Your task to perform on an android device: change timer sound Image 0: 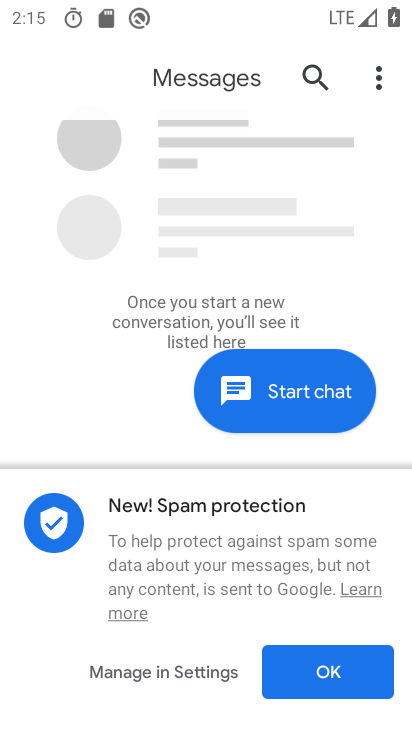
Step 0: press home button
Your task to perform on an android device: change timer sound Image 1: 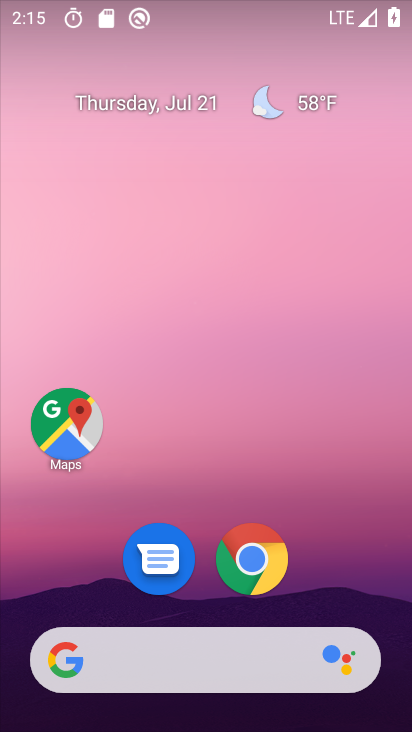
Step 1: drag from (360, 538) to (375, 147)
Your task to perform on an android device: change timer sound Image 2: 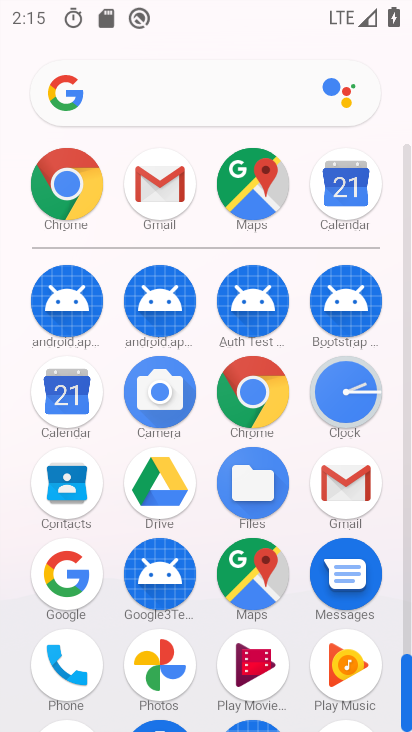
Step 2: click (376, 410)
Your task to perform on an android device: change timer sound Image 3: 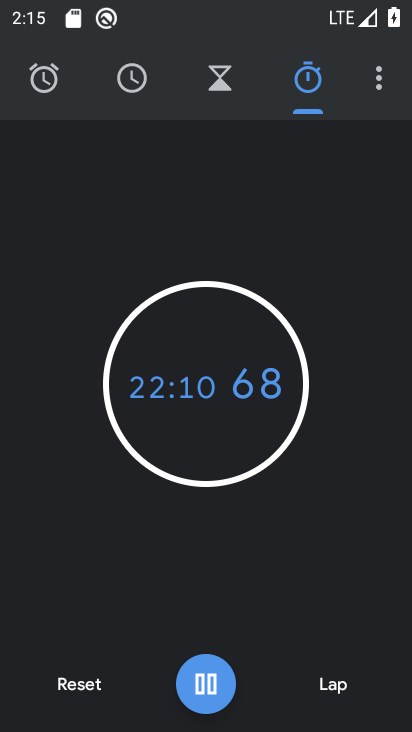
Step 3: click (380, 89)
Your task to perform on an android device: change timer sound Image 4: 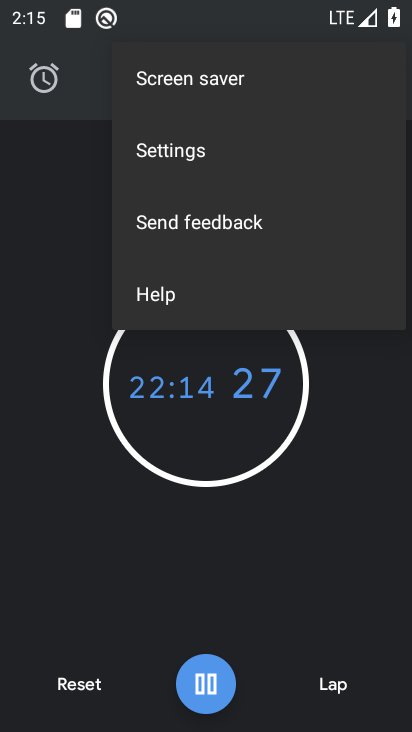
Step 4: click (246, 163)
Your task to perform on an android device: change timer sound Image 5: 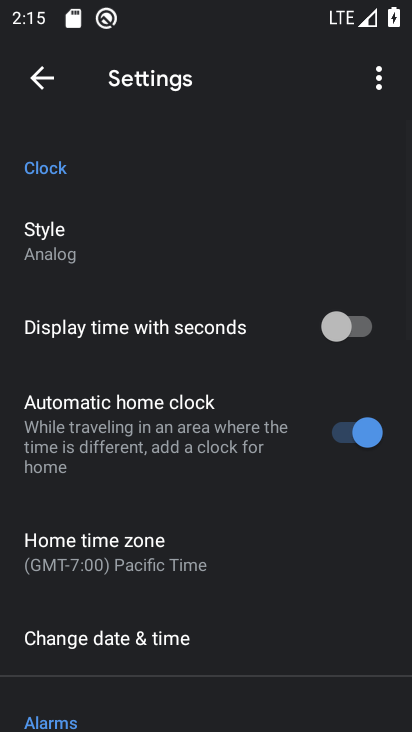
Step 5: drag from (280, 489) to (281, 422)
Your task to perform on an android device: change timer sound Image 6: 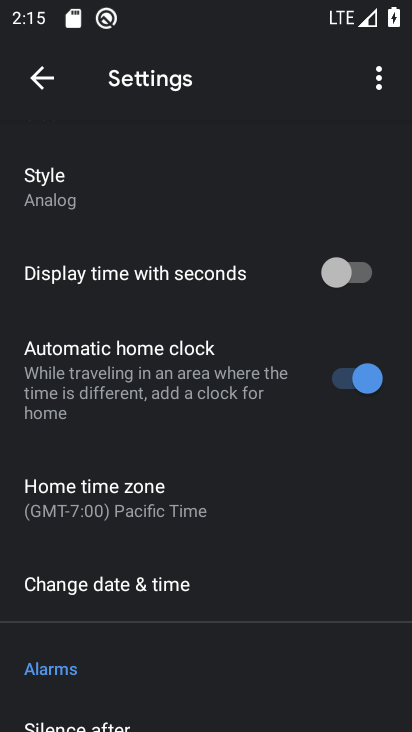
Step 6: drag from (285, 517) to (289, 438)
Your task to perform on an android device: change timer sound Image 7: 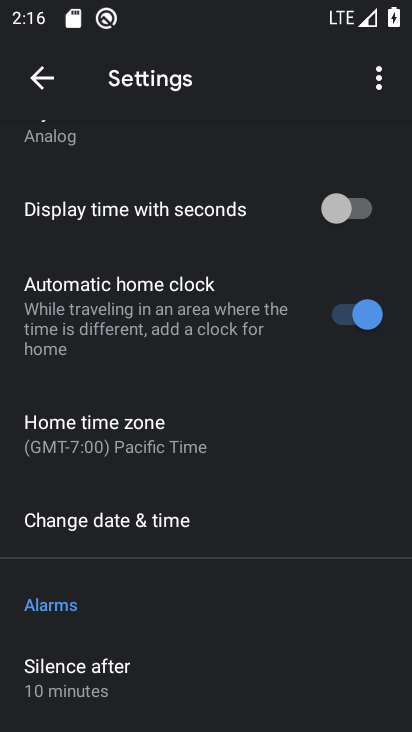
Step 7: drag from (287, 508) to (288, 430)
Your task to perform on an android device: change timer sound Image 8: 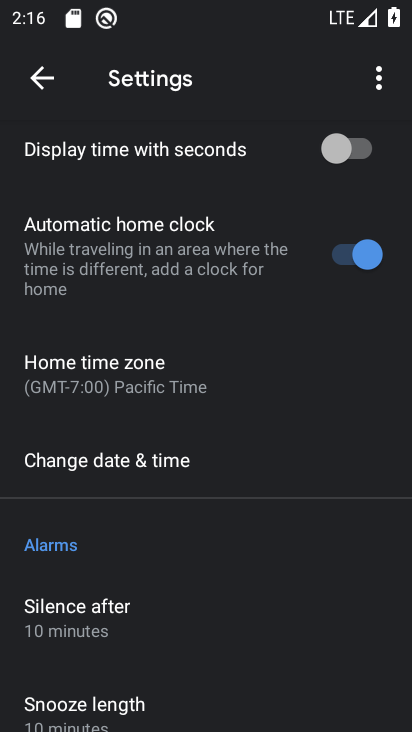
Step 8: drag from (305, 585) to (309, 442)
Your task to perform on an android device: change timer sound Image 9: 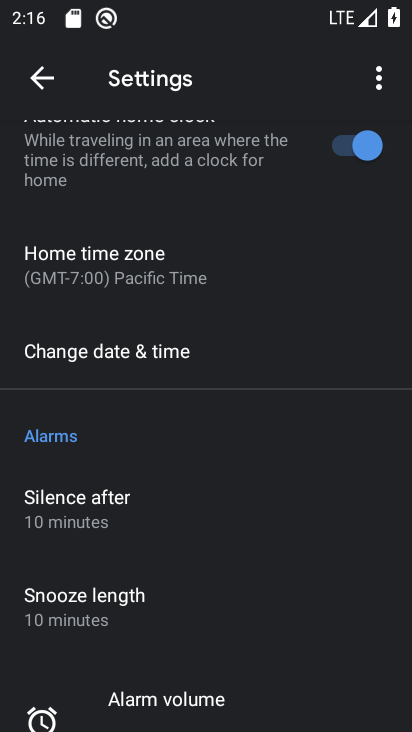
Step 9: drag from (317, 516) to (317, 425)
Your task to perform on an android device: change timer sound Image 10: 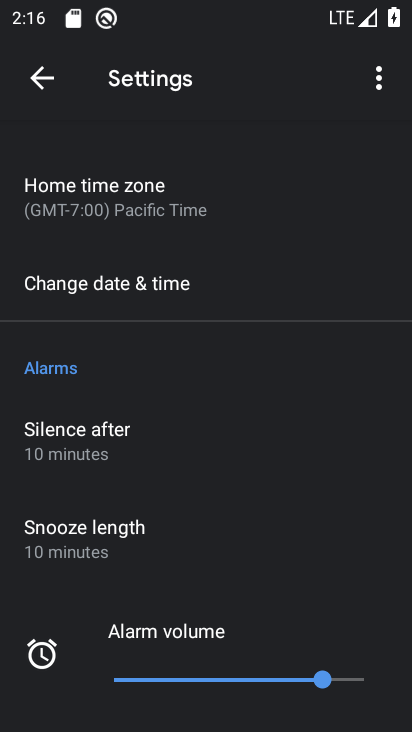
Step 10: drag from (300, 546) to (306, 433)
Your task to perform on an android device: change timer sound Image 11: 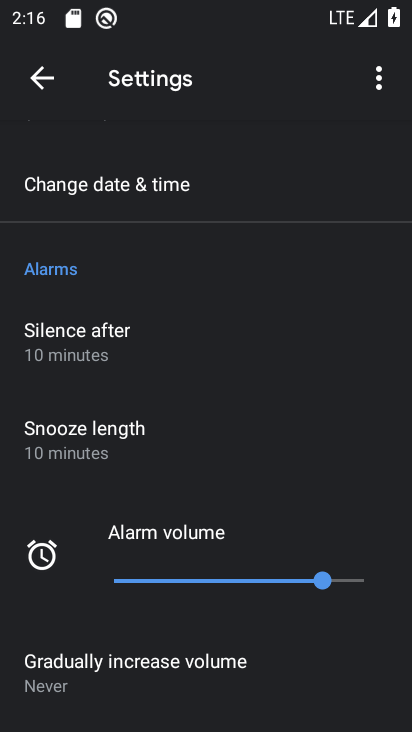
Step 11: drag from (300, 613) to (311, 514)
Your task to perform on an android device: change timer sound Image 12: 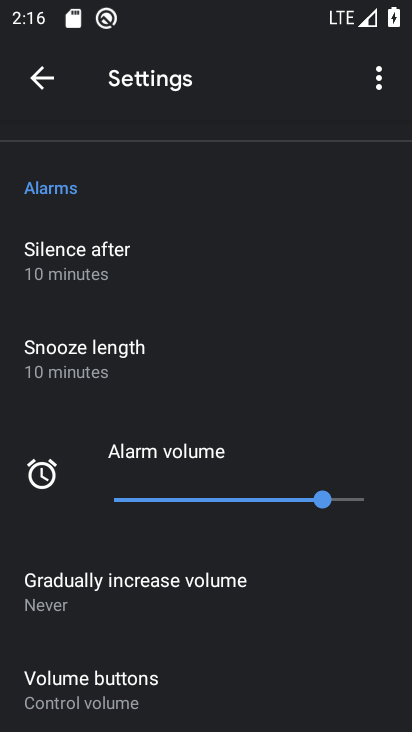
Step 12: drag from (314, 611) to (316, 488)
Your task to perform on an android device: change timer sound Image 13: 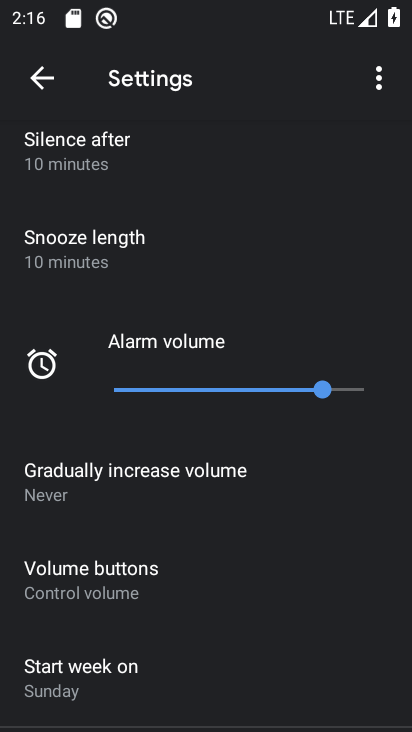
Step 13: drag from (298, 598) to (300, 462)
Your task to perform on an android device: change timer sound Image 14: 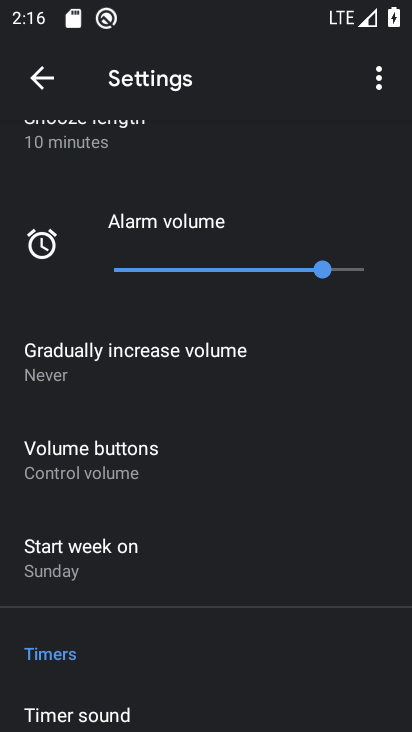
Step 14: drag from (279, 630) to (289, 500)
Your task to perform on an android device: change timer sound Image 15: 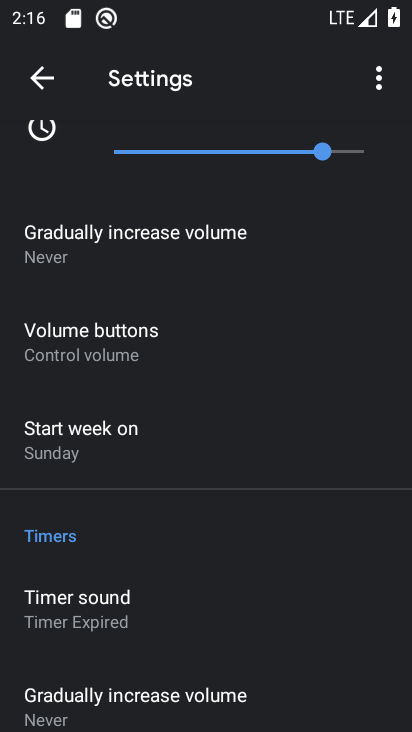
Step 15: click (196, 605)
Your task to perform on an android device: change timer sound Image 16: 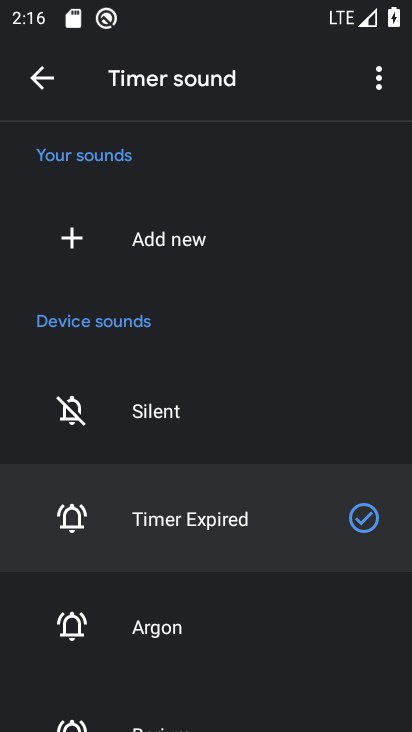
Step 16: click (189, 626)
Your task to perform on an android device: change timer sound Image 17: 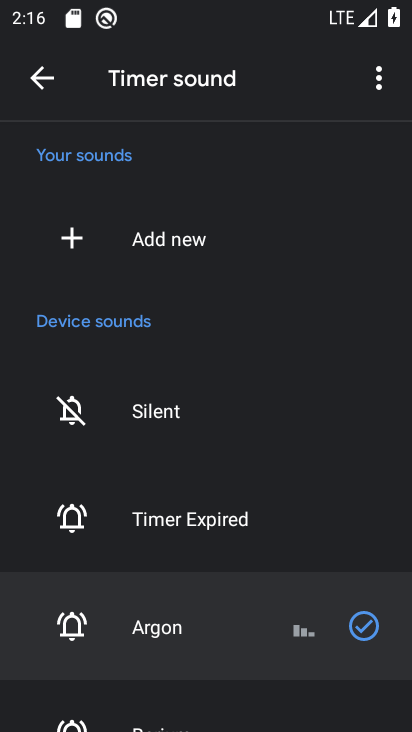
Step 17: task complete